Your task to perform on an android device: clear history in the chrome app Image 0: 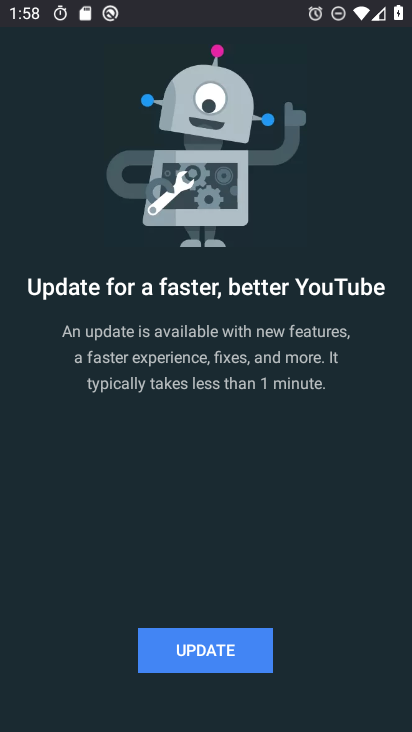
Step 0: press home button
Your task to perform on an android device: clear history in the chrome app Image 1: 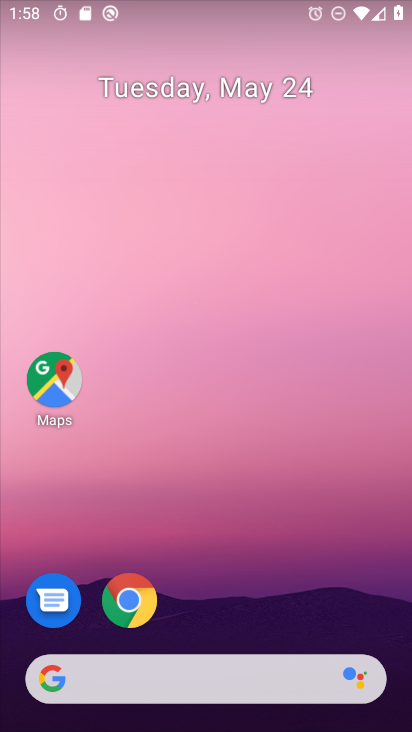
Step 1: click (130, 602)
Your task to perform on an android device: clear history in the chrome app Image 2: 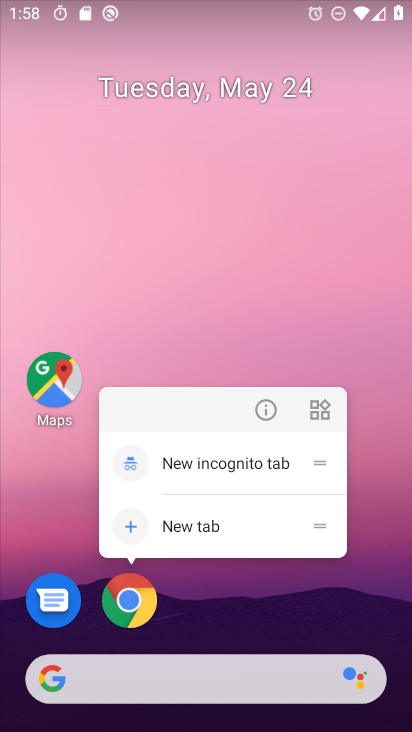
Step 2: click (235, 612)
Your task to perform on an android device: clear history in the chrome app Image 3: 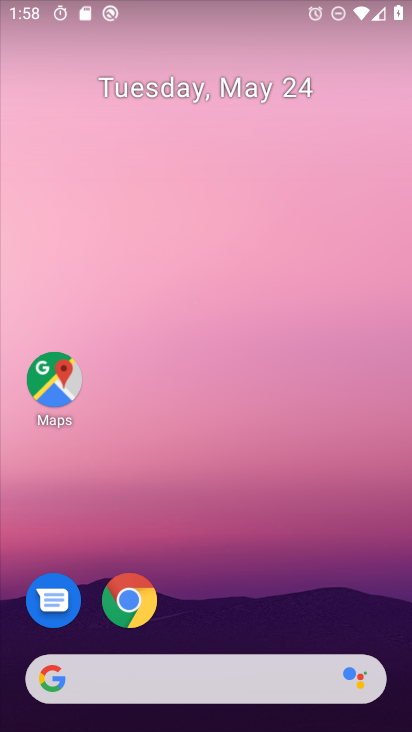
Step 3: drag from (237, 609) to (257, 168)
Your task to perform on an android device: clear history in the chrome app Image 4: 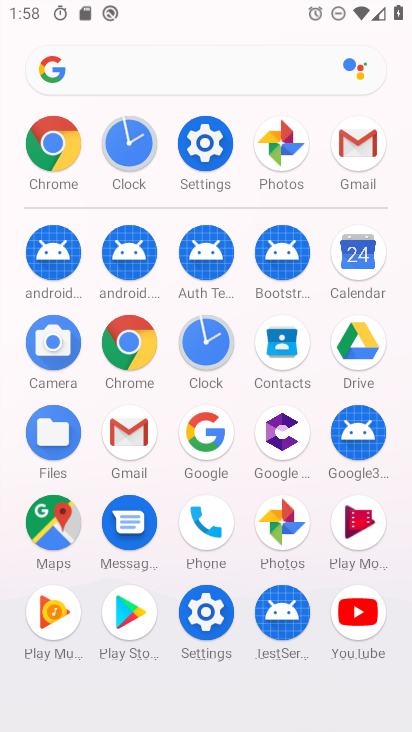
Step 4: click (117, 346)
Your task to perform on an android device: clear history in the chrome app Image 5: 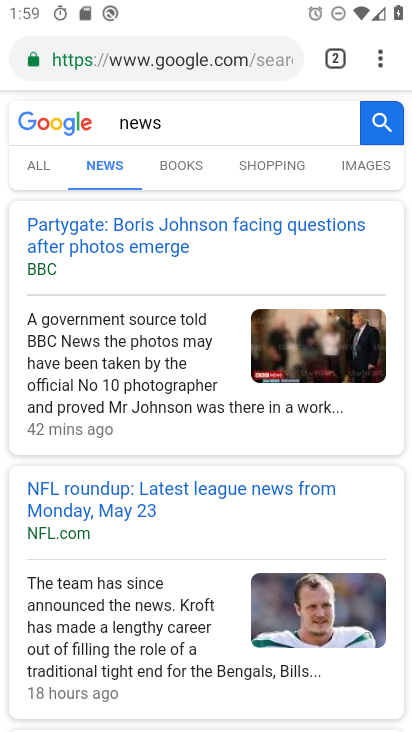
Step 5: click (392, 56)
Your task to perform on an android device: clear history in the chrome app Image 6: 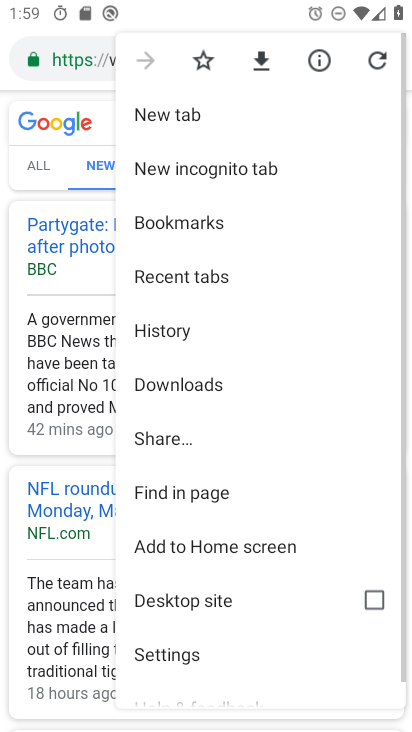
Step 6: click (223, 328)
Your task to perform on an android device: clear history in the chrome app Image 7: 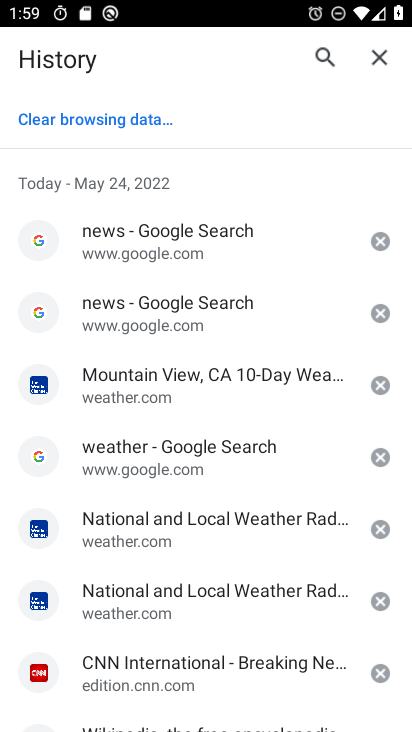
Step 7: click (123, 114)
Your task to perform on an android device: clear history in the chrome app Image 8: 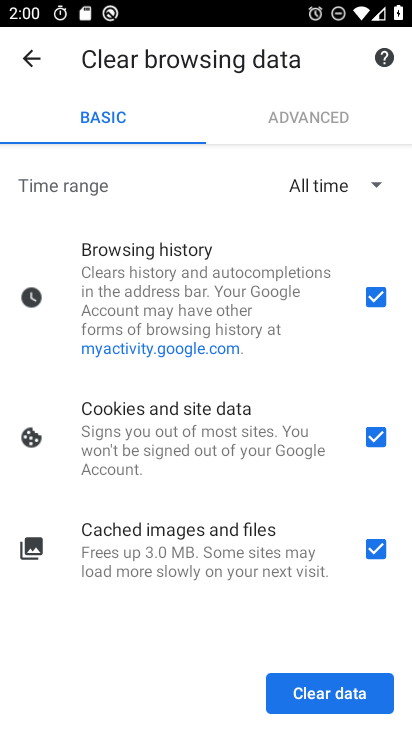
Step 8: click (366, 686)
Your task to perform on an android device: clear history in the chrome app Image 9: 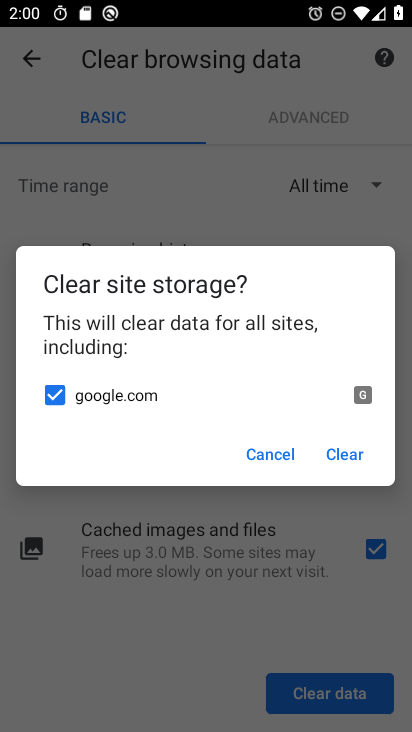
Step 9: click (337, 448)
Your task to perform on an android device: clear history in the chrome app Image 10: 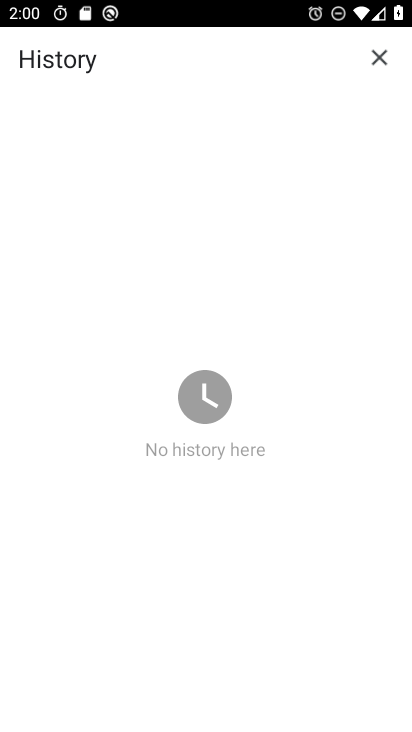
Step 10: task complete